Your task to perform on an android device: turn off location history Image 0: 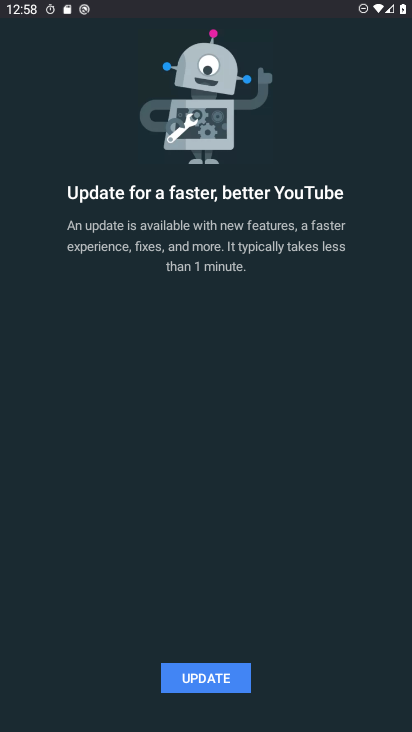
Step 0: press home button
Your task to perform on an android device: turn off location history Image 1: 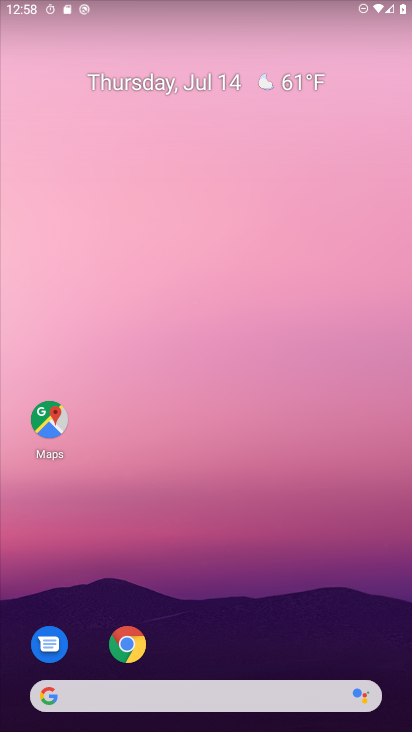
Step 1: click (173, 177)
Your task to perform on an android device: turn off location history Image 2: 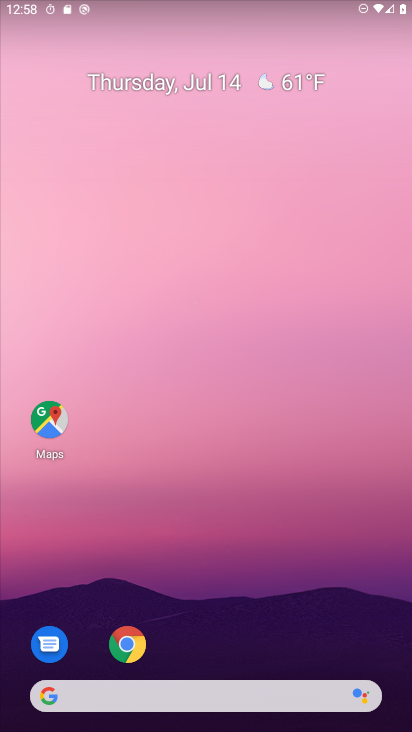
Step 2: drag from (260, 540) to (244, 86)
Your task to perform on an android device: turn off location history Image 3: 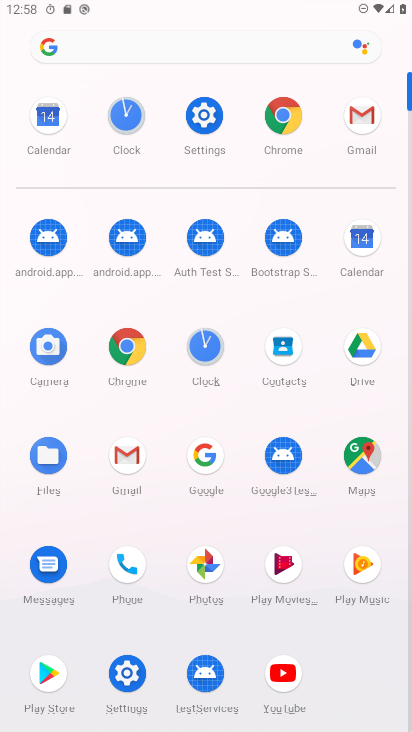
Step 3: click (198, 116)
Your task to perform on an android device: turn off location history Image 4: 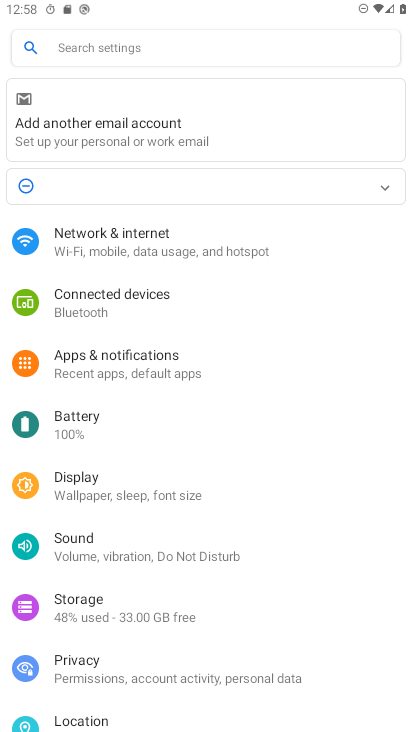
Step 4: drag from (225, 608) to (171, 258)
Your task to perform on an android device: turn off location history Image 5: 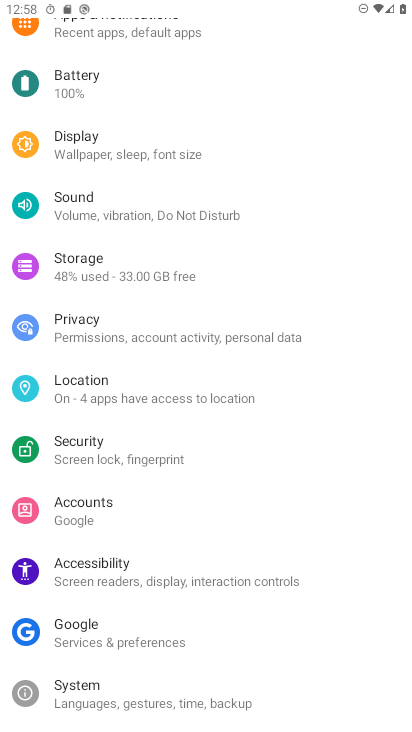
Step 5: click (102, 385)
Your task to perform on an android device: turn off location history Image 6: 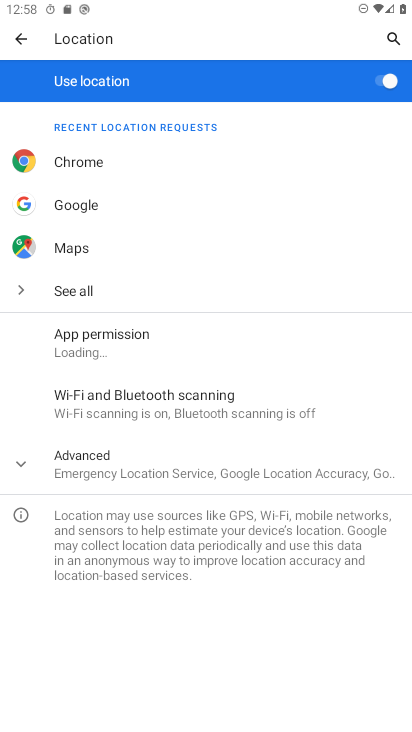
Step 6: click (163, 467)
Your task to perform on an android device: turn off location history Image 7: 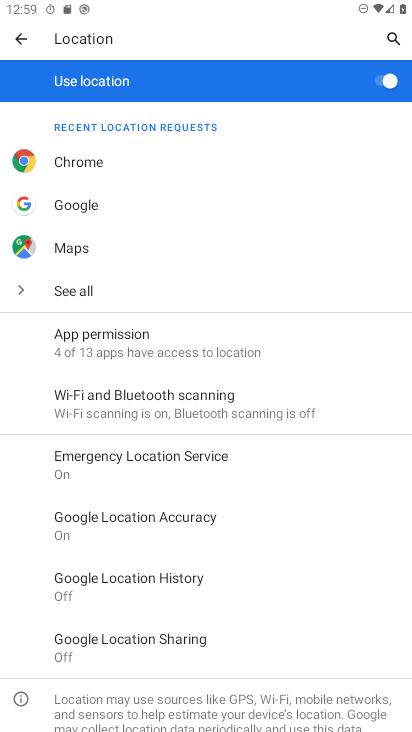
Step 7: click (142, 584)
Your task to perform on an android device: turn off location history Image 8: 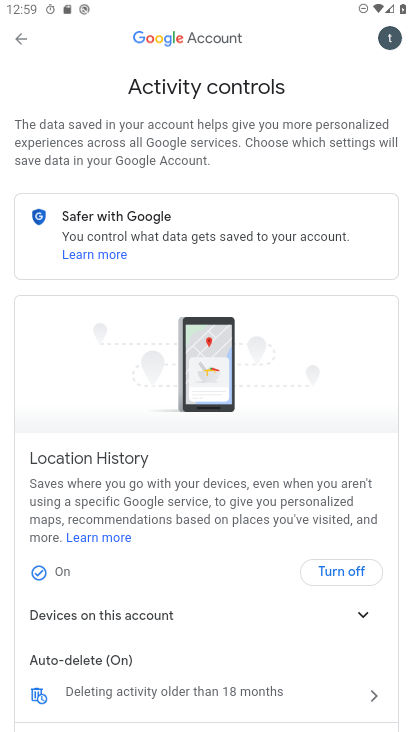
Step 8: click (346, 568)
Your task to perform on an android device: turn off location history Image 9: 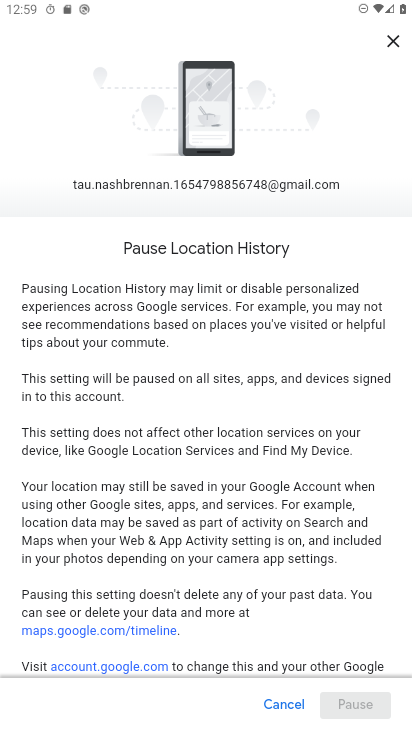
Step 9: drag from (332, 558) to (308, 130)
Your task to perform on an android device: turn off location history Image 10: 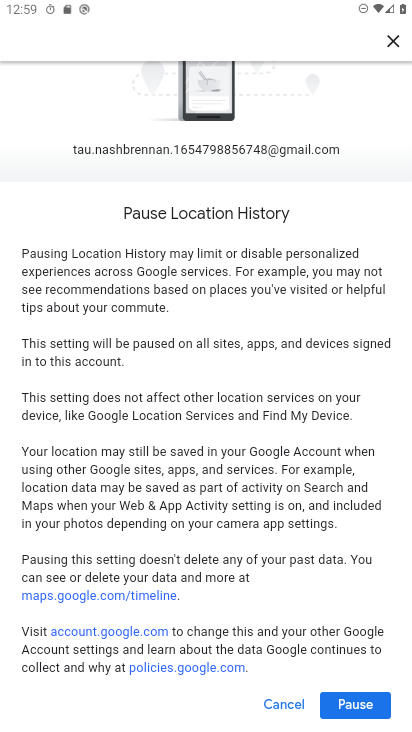
Step 10: click (349, 705)
Your task to perform on an android device: turn off location history Image 11: 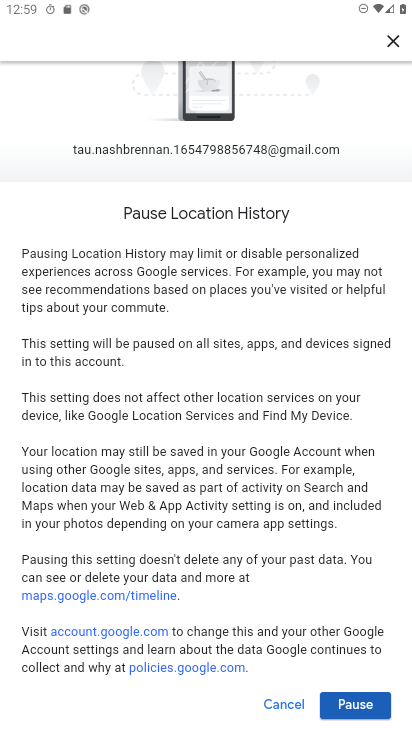
Step 11: click (351, 703)
Your task to perform on an android device: turn off location history Image 12: 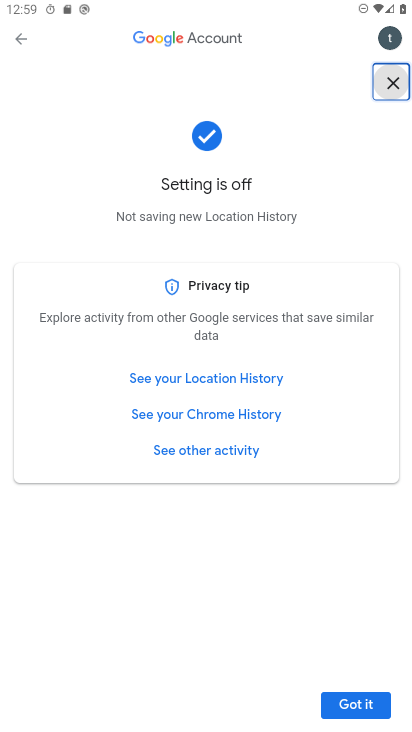
Step 12: task complete